Your task to perform on an android device: Search for pizza restaurants on Maps Image 0: 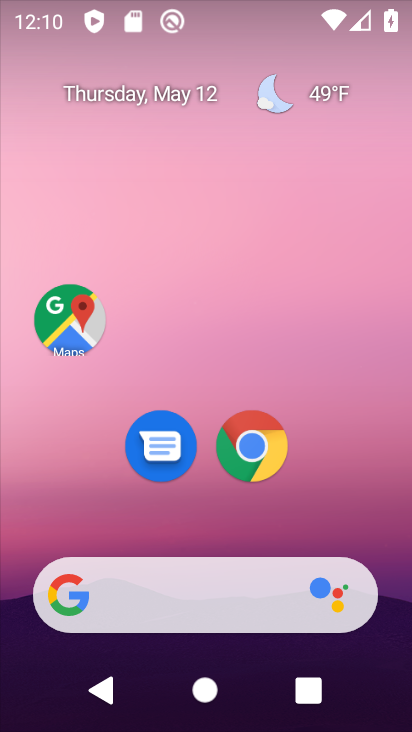
Step 0: click (72, 342)
Your task to perform on an android device: Search for pizza restaurants on Maps Image 1: 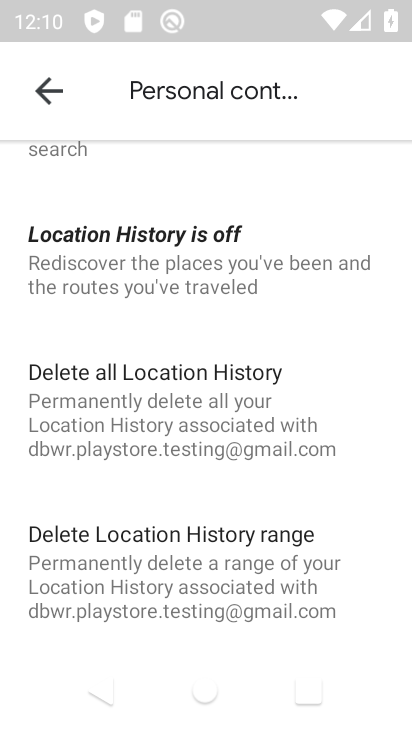
Step 1: click (58, 86)
Your task to perform on an android device: Search for pizza restaurants on Maps Image 2: 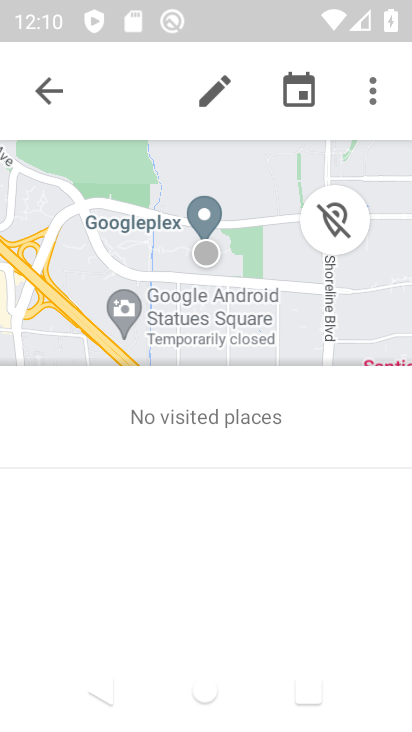
Step 2: click (32, 91)
Your task to perform on an android device: Search for pizza restaurants on Maps Image 3: 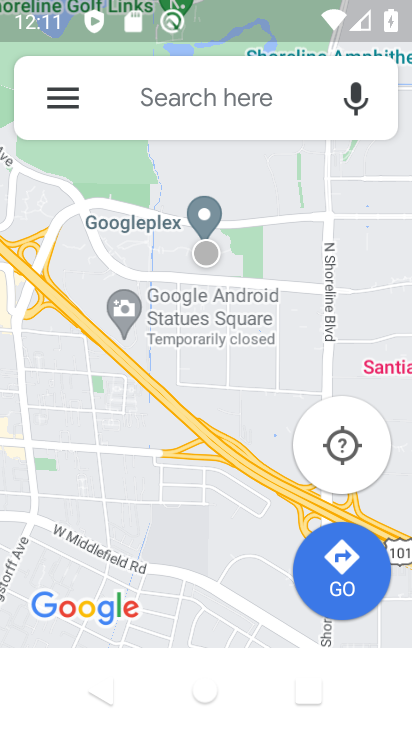
Step 3: click (107, 90)
Your task to perform on an android device: Search for pizza restaurants on Maps Image 4: 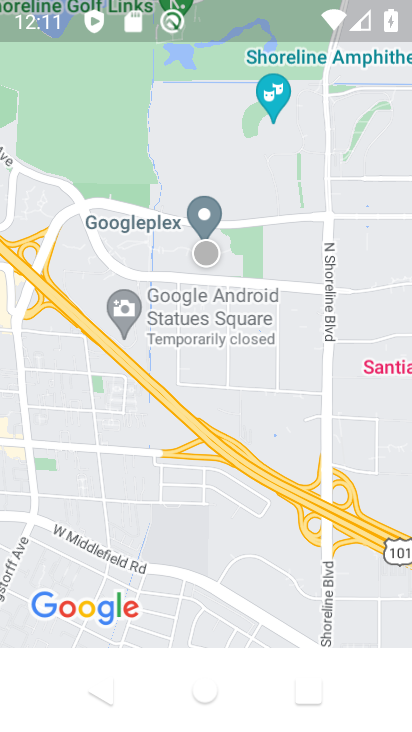
Step 4: press back button
Your task to perform on an android device: Search for pizza restaurants on Maps Image 5: 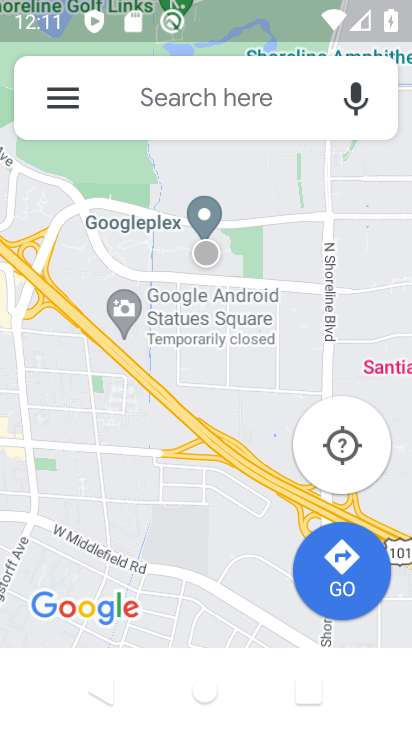
Step 5: click (158, 96)
Your task to perform on an android device: Search for pizza restaurants on Maps Image 6: 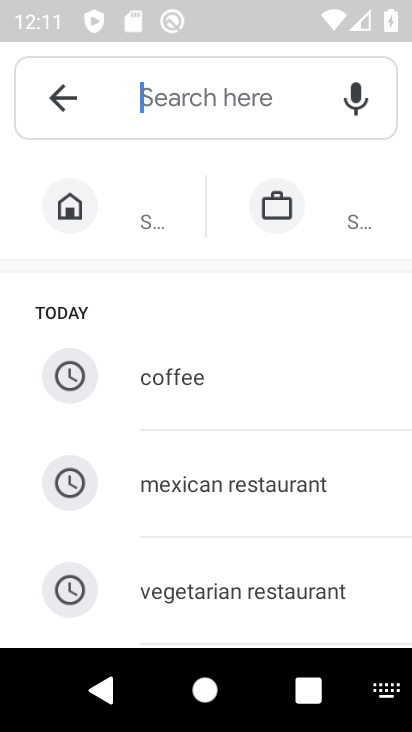
Step 6: type "pizza restaurants "
Your task to perform on an android device: Search for pizza restaurants on Maps Image 7: 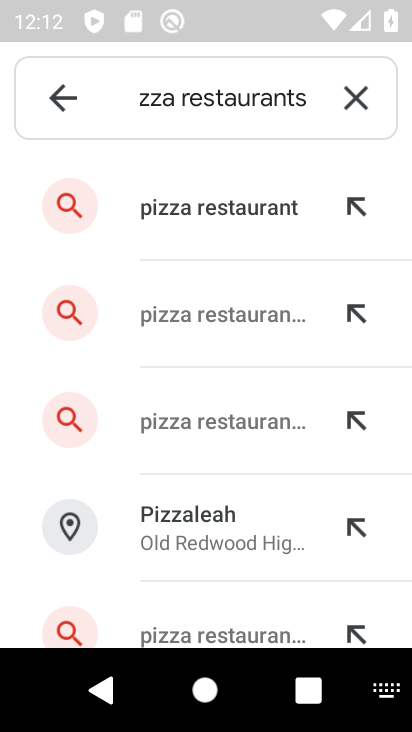
Step 7: click (237, 216)
Your task to perform on an android device: Search for pizza restaurants on Maps Image 8: 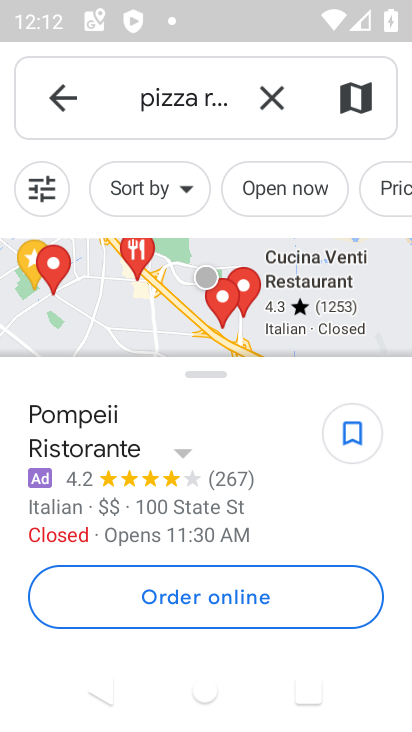
Step 8: task complete